Your task to perform on an android device: turn off translation in the chrome app Image 0: 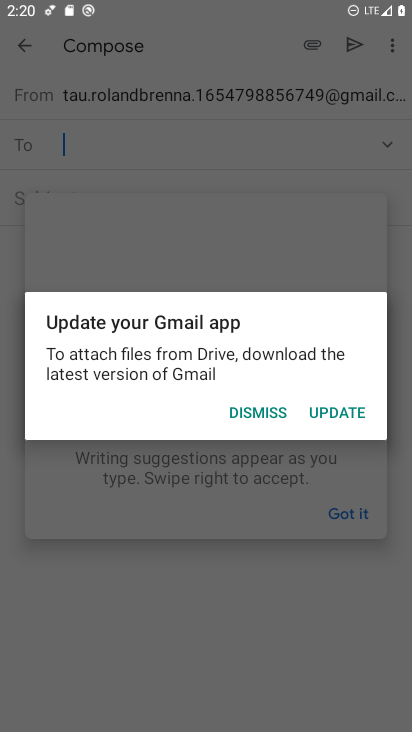
Step 0: press home button
Your task to perform on an android device: turn off translation in the chrome app Image 1: 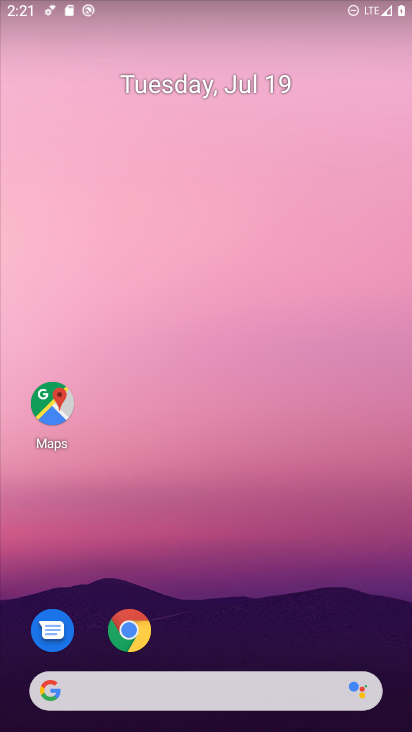
Step 1: click (129, 632)
Your task to perform on an android device: turn off translation in the chrome app Image 2: 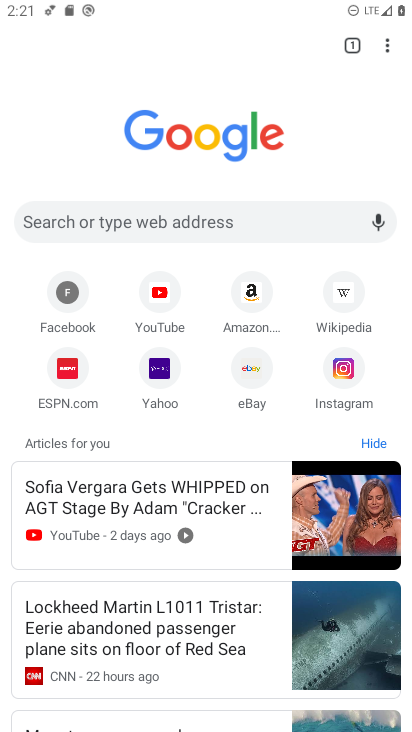
Step 2: click (385, 49)
Your task to perform on an android device: turn off translation in the chrome app Image 3: 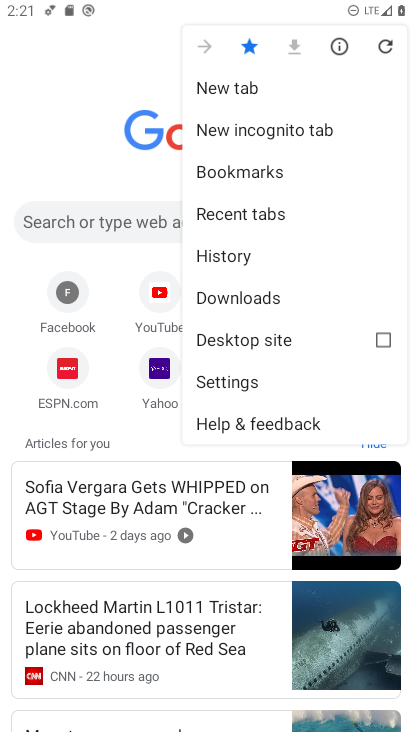
Step 3: click (220, 383)
Your task to perform on an android device: turn off translation in the chrome app Image 4: 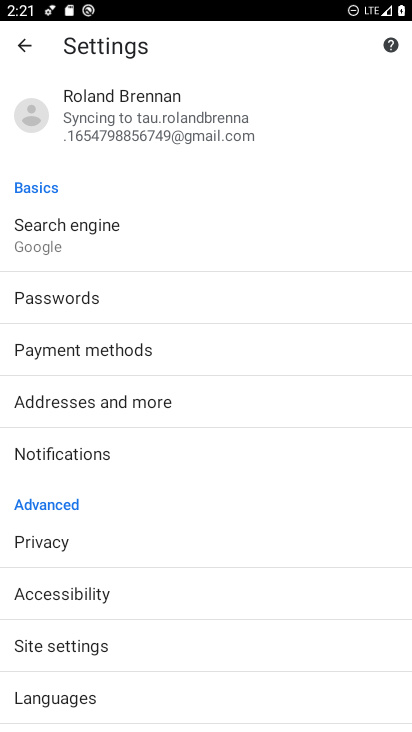
Step 4: drag from (153, 609) to (193, 274)
Your task to perform on an android device: turn off translation in the chrome app Image 5: 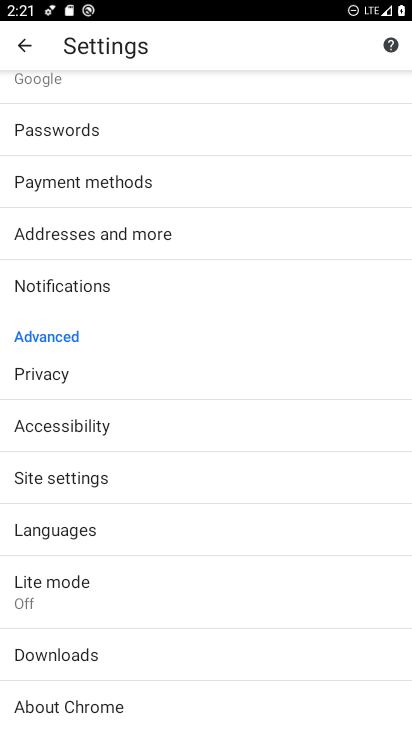
Step 5: click (60, 523)
Your task to perform on an android device: turn off translation in the chrome app Image 6: 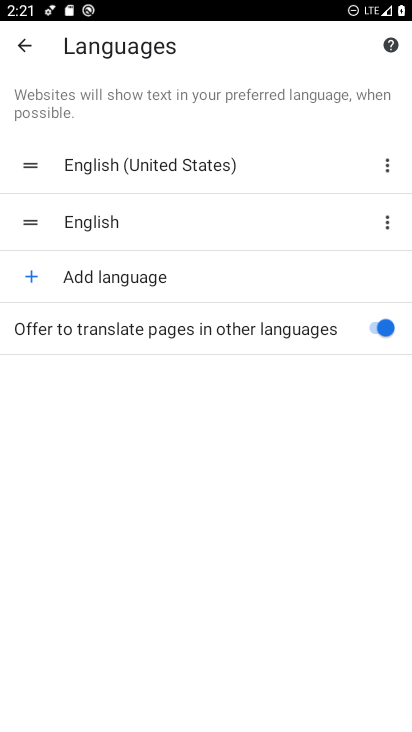
Step 6: click (370, 325)
Your task to perform on an android device: turn off translation in the chrome app Image 7: 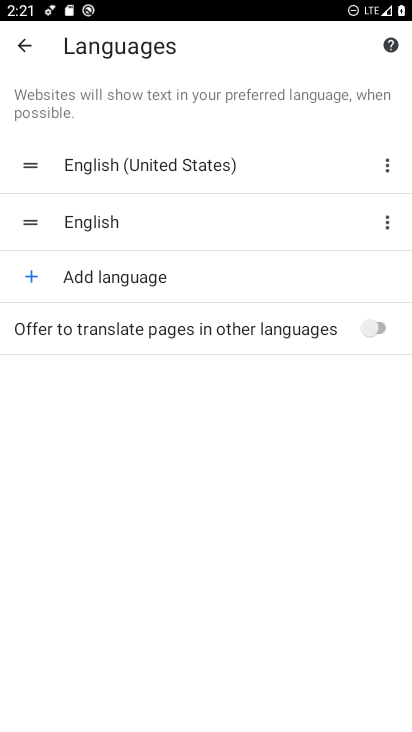
Step 7: task complete